Your task to perform on an android device: Go to notification settings Image 0: 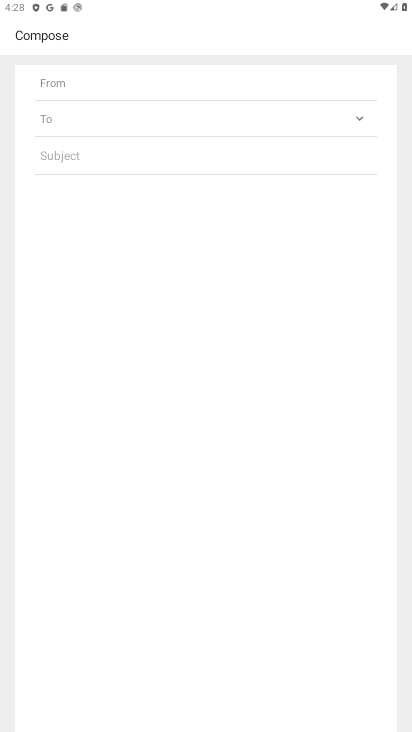
Step 0: drag from (252, 598) to (224, 93)
Your task to perform on an android device: Go to notification settings Image 1: 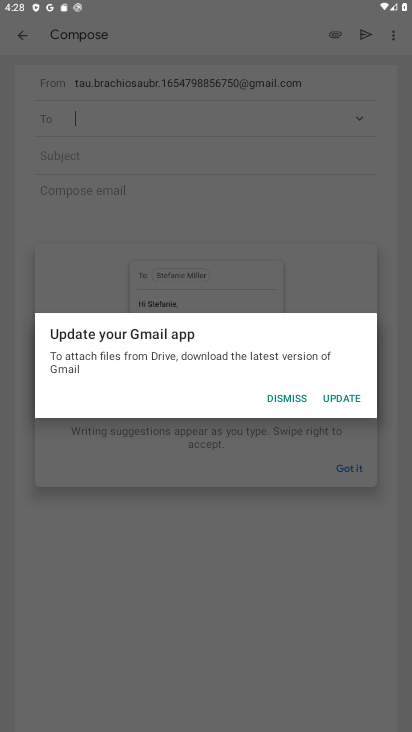
Step 1: press home button
Your task to perform on an android device: Go to notification settings Image 2: 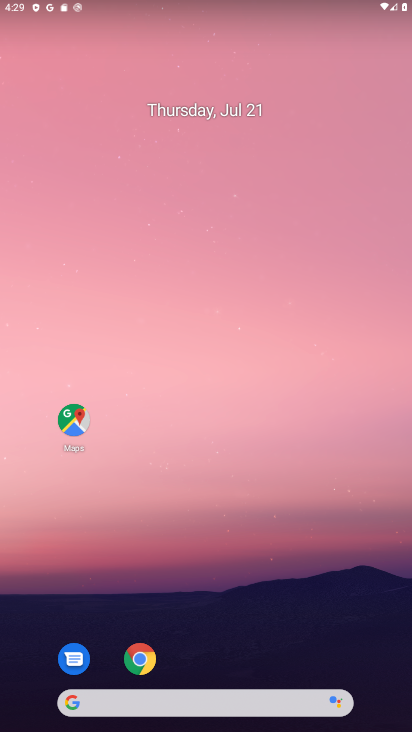
Step 2: drag from (209, 631) to (186, 177)
Your task to perform on an android device: Go to notification settings Image 3: 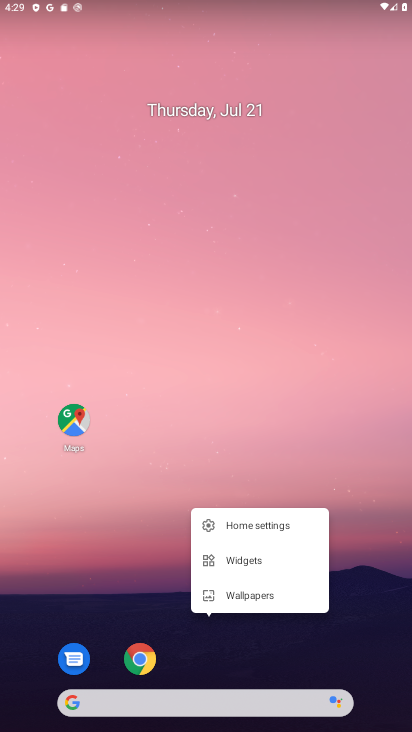
Step 3: drag from (124, 595) to (98, 102)
Your task to perform on an android device: Go to notification settings Image 4: 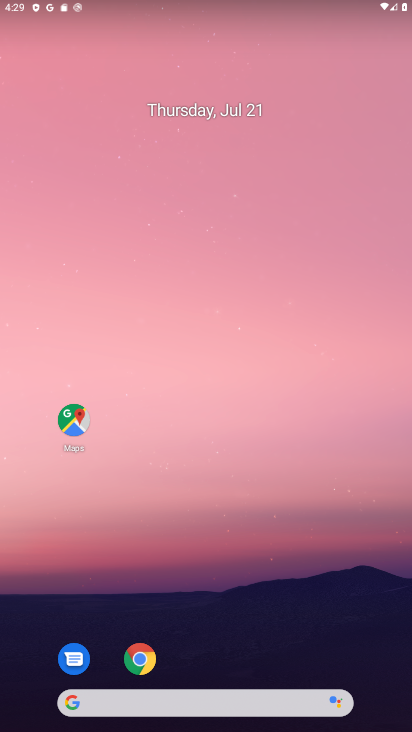
Step 4: drag from (250, 627) to (205, 150)
Your task to perform on an android device: Go to notification settings Image 5: 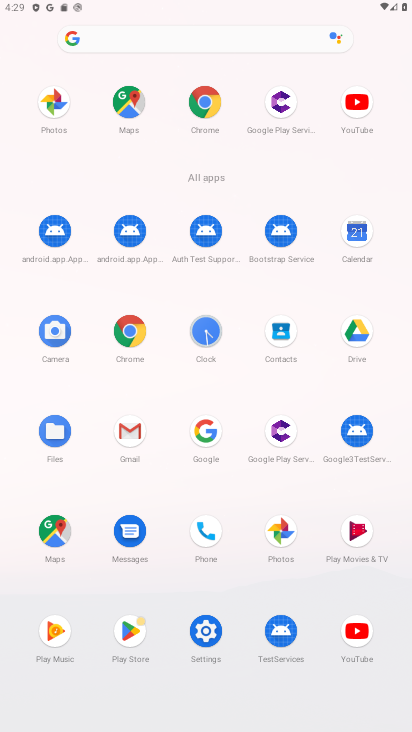
Step 5: click (207, 627)
Your task to perform on an android device: Go to notification settings Image 6: 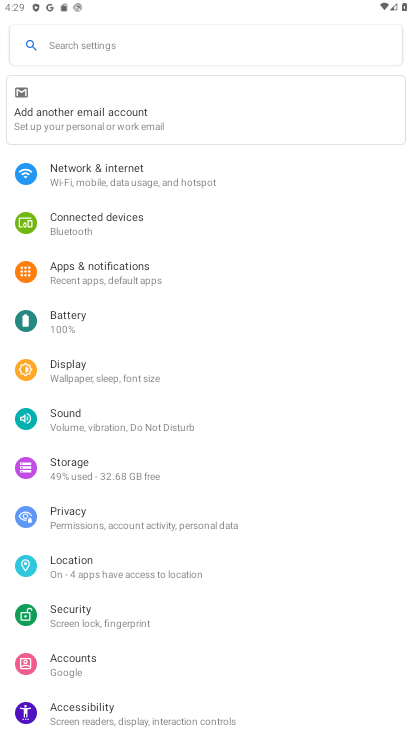
Step 6: click (111, 266)
Your task to perform on an android device: Go to notification settings Image 7: 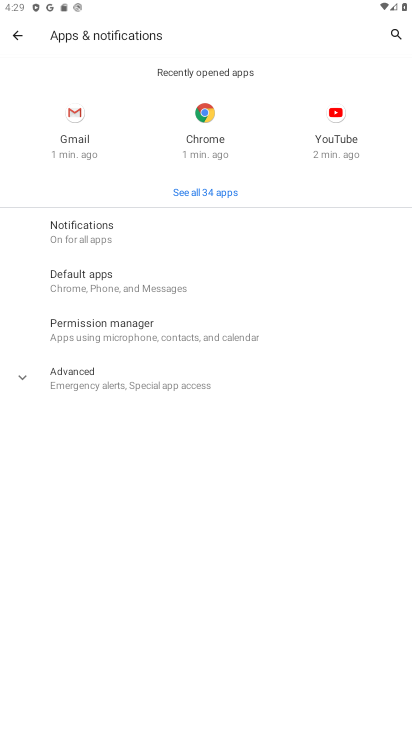
Step 7: task complete